Your task to perform on an android device: Open the calendar and show me this week's events? Image 0: 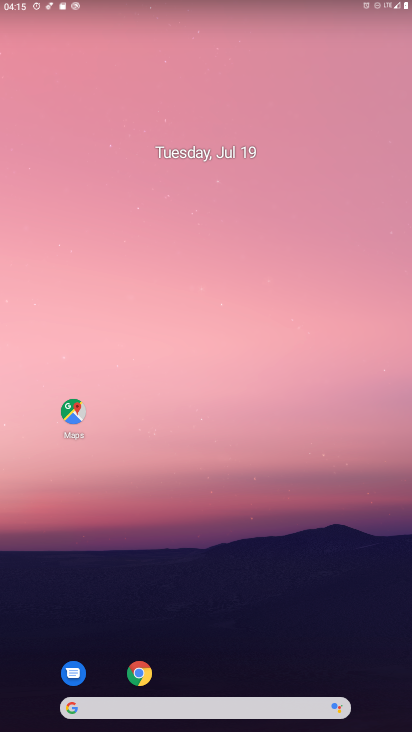
Step 0: drag from (231, 678) to (263, 5)
Your task to perform on an android device: Open the calendar and show me this week's events? Image 1: 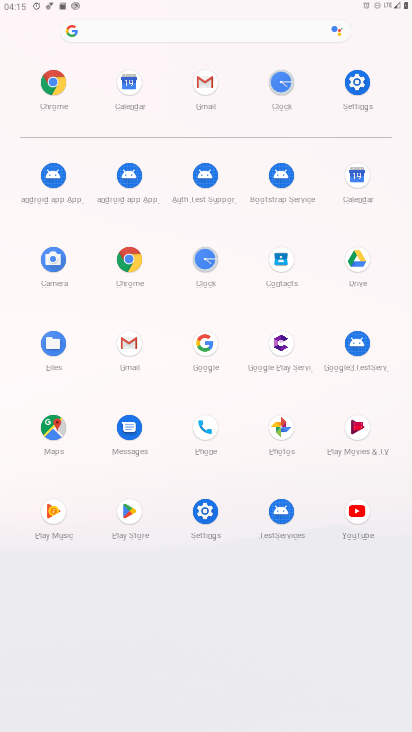
Step 1: click (367, 176)
Your task to perform on an android device: Open the calendar and show me this week's events? Image 2: 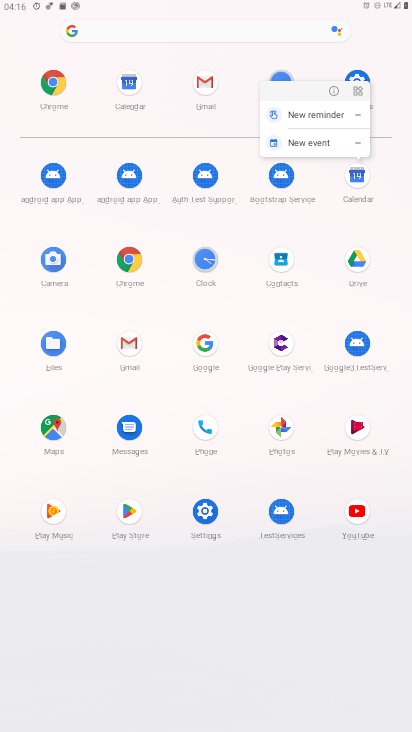
Step 2: click (354, 176)
Your task to perform on an android device: Open the calendar and show me this week's events? Image 3: 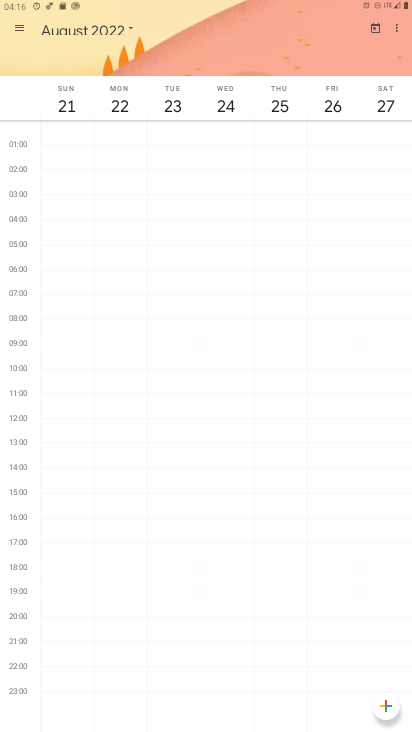
Step 3: click (80, 22)
Your task to perform on an android device: Open the calendar and show me this week's events? Image 4: 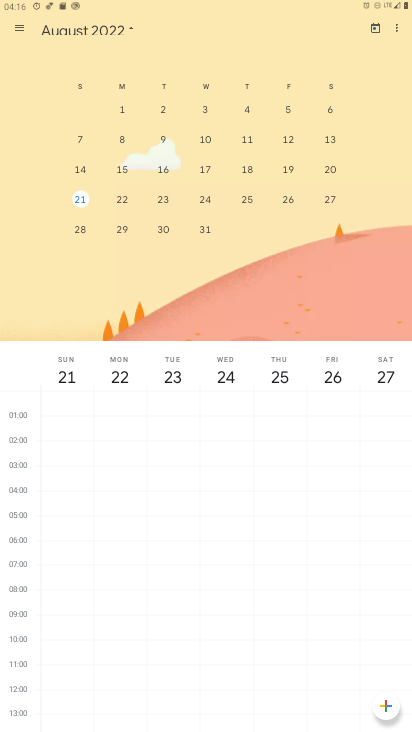
Step 4: drag from (116, 172) to (398, 210)
Your task to perform on an android device: Open the calendar and show me this week's events? Image 5: 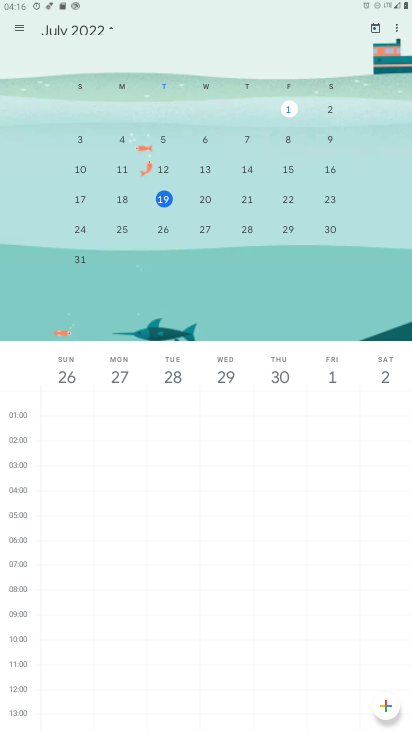
Step 5: click (166, 197)
Your task to perform on an android device: Open the calendar and show me this week's events? Image 6: 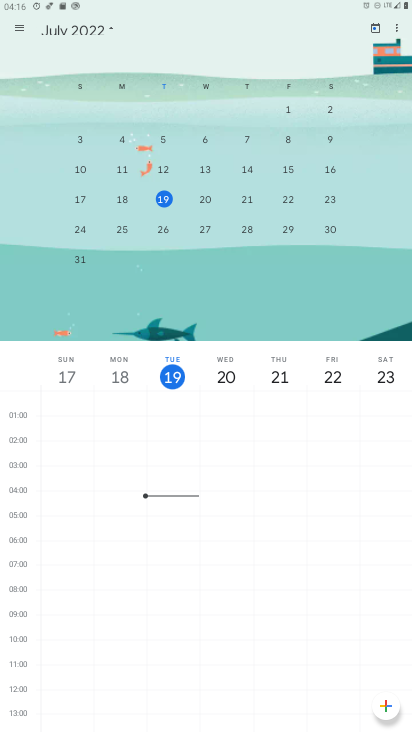
Step 6: click (21, 30)
Your task to perform on an android device: Open the calendar and show me this week's events? Image 7: 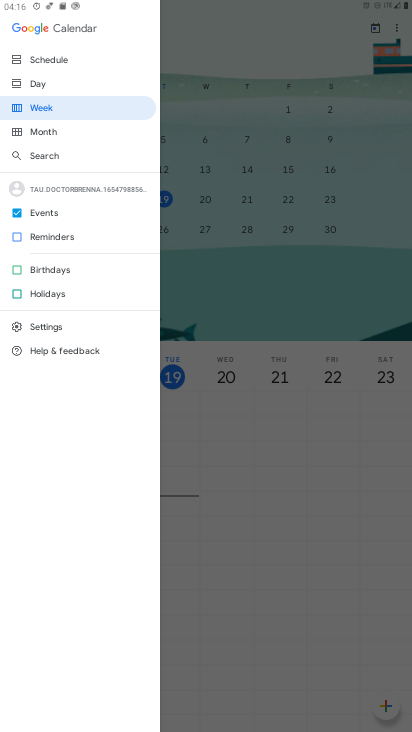
Step 7: click (52, 107)
Your task to perform on an android device: Open the calendar and show me this week's events? Image 8: 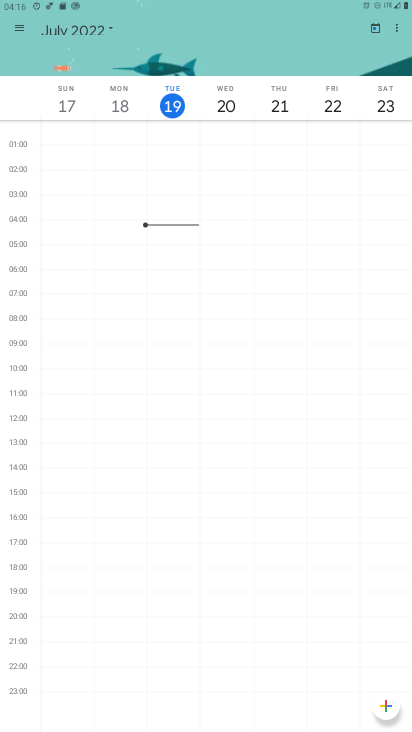
Step 8: task complete